Your task to perform on an android device: turn off notifications settings in the gmail app Image 0: 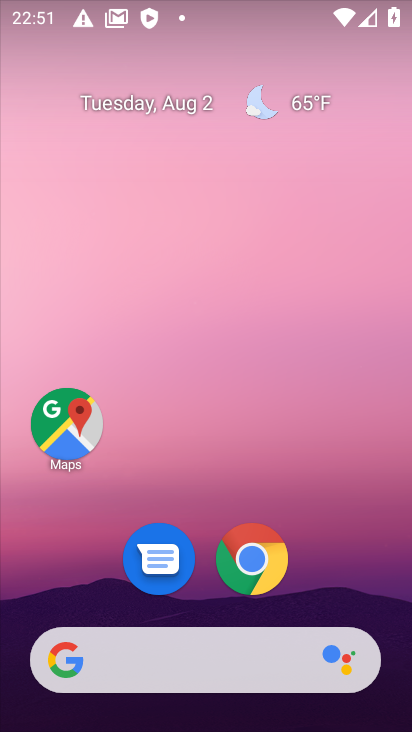
Step 0: drag from (282, 641) to (235, 296)
Your task to perform on an android device: turn off notifications settings in the gmail app Image 1: 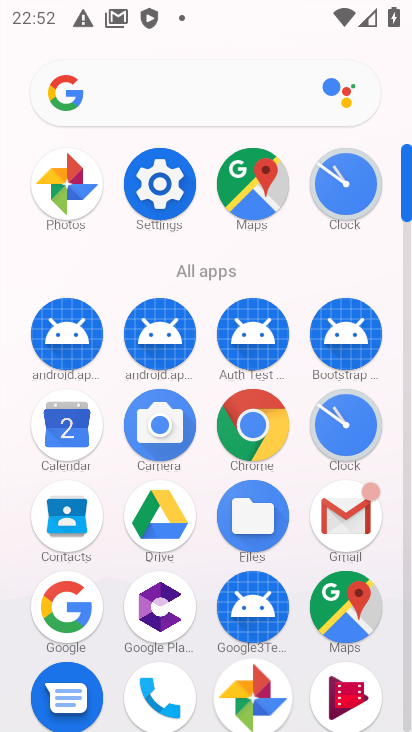
Step 1: click (170, 173)
Your task to perform on an android device: turn off notifications settings in the gmail app Image 2: 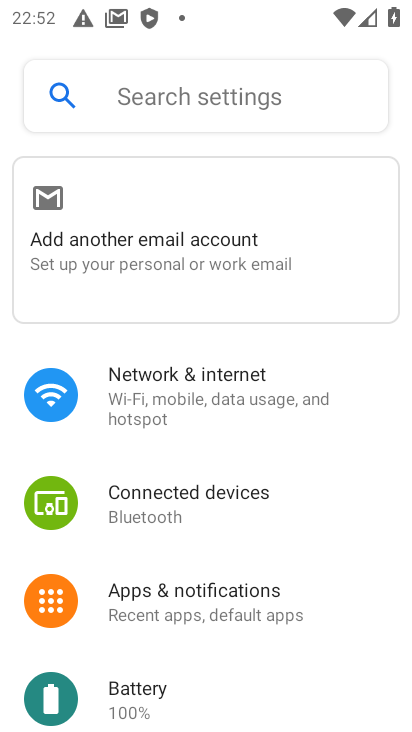
Step 2: press back button
Your task to perform on an android device: turn off notifications settings in the gmail app Image 3: 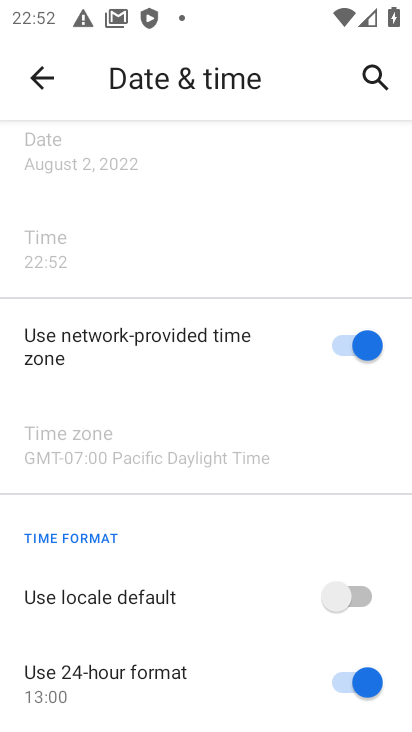
Step 3: click (44, 73)
Your task to perform on an android device: turn off notifications settings in the gmail app Image 4: 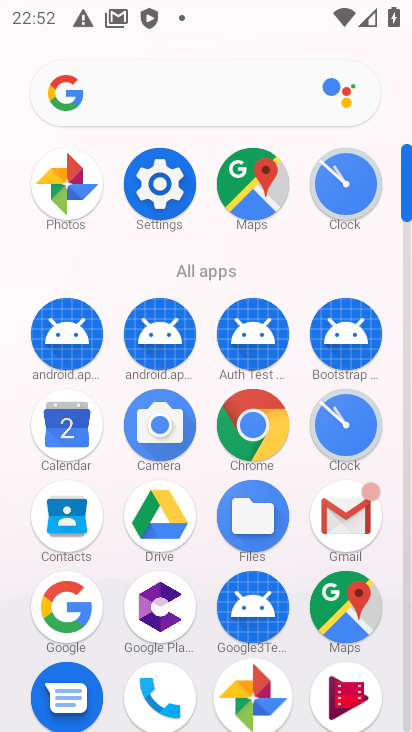
Step 4: click (322, 511)
Your task to perform on an android device: turn off notifications settings in the gmail app Image 5: 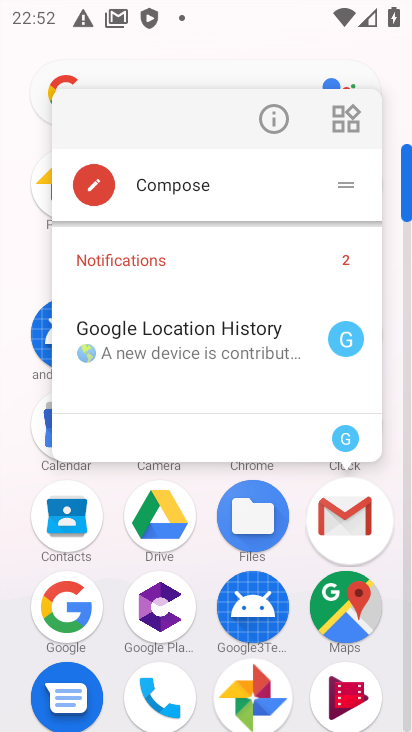
Step 5: click (353, 496)
Your task to perform on an android device: turn off notifications settings in the gmail app Image 6: 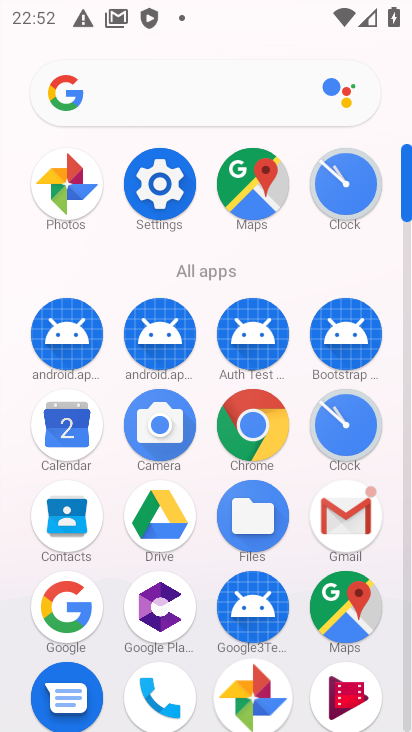
Step 6: click (351, 499)
Your task to perform on an android device: turn off notifications settings in the gmail app Image 7: 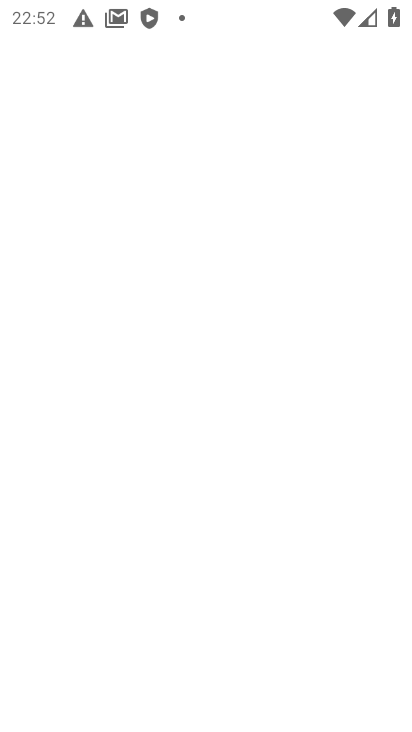
Step 7: click (347, 508)
Your task to perform on an android device: turn off notifications settings in the gmail app Image 8: 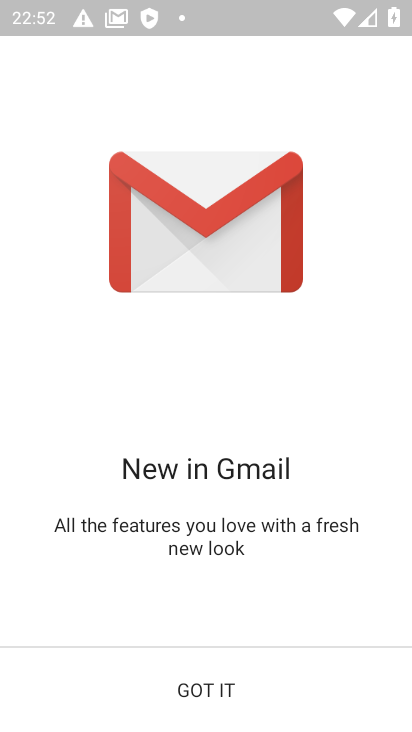
Step 8: click (202, 691)
Your task to perform on an android device: turn off notifications settings in the gmail app Image 9: 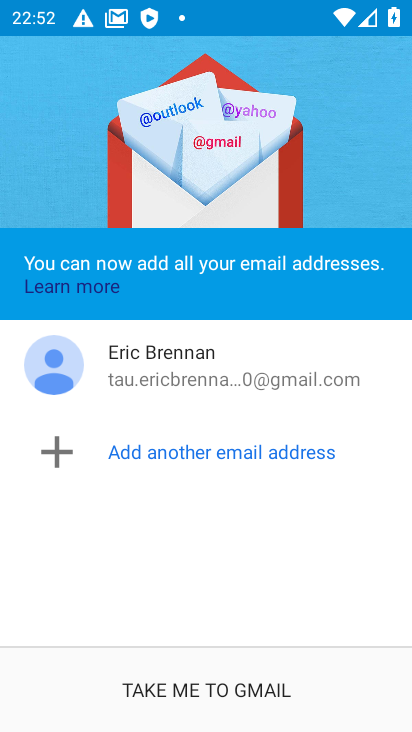
Step 9: click (228, 684)
Your task to perform on an android device: turn off notifications settings in the gmail app Image 10: 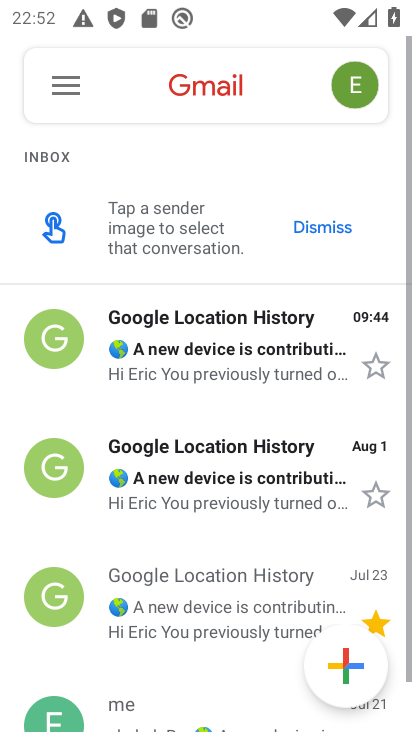
Step 10: click (60, 82)
Your task to perform on an android device: turn off notifications settings in the gmail app Image 11: 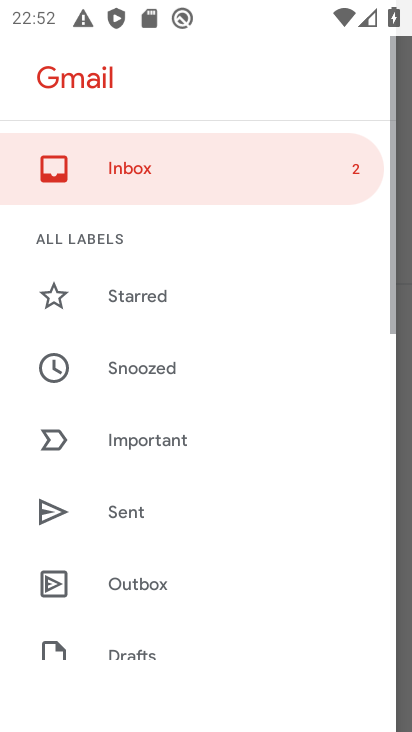
Step 11: drag from (138, 498) to (159, 136)
Your task to perform on an android device: turn off notifications settings in the gmail app Image 12: 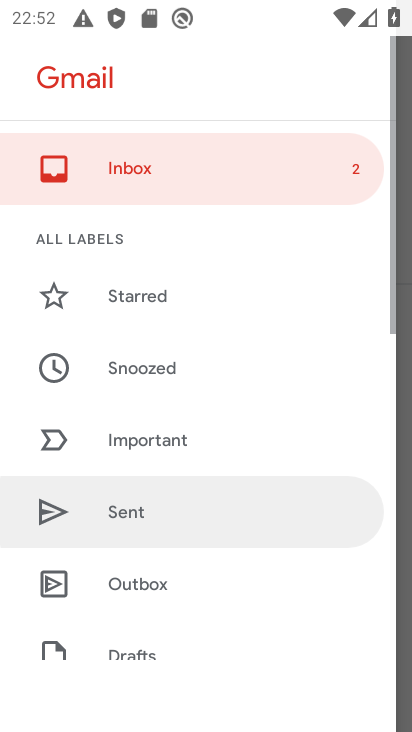
Step 12: drag from (152, 419) to (152, 193)
Your task to perform on an android device: turn off notifications settings in the gmail app Image 13: 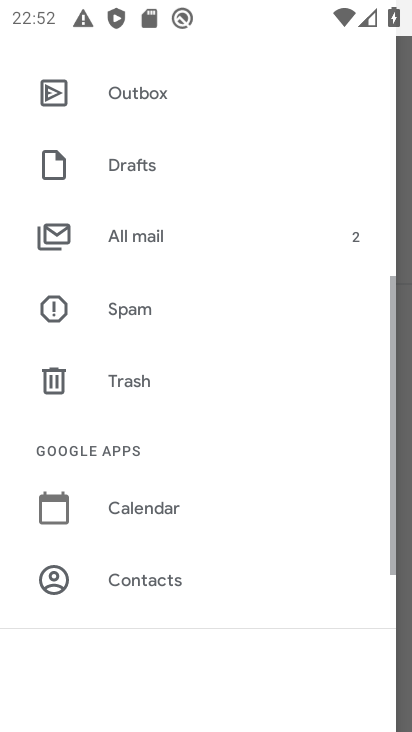
Step 13: drag from (170, 581) to (178, 250)
Your task to perform on an android device: turn off notifications settings in the gmail app Image 14: 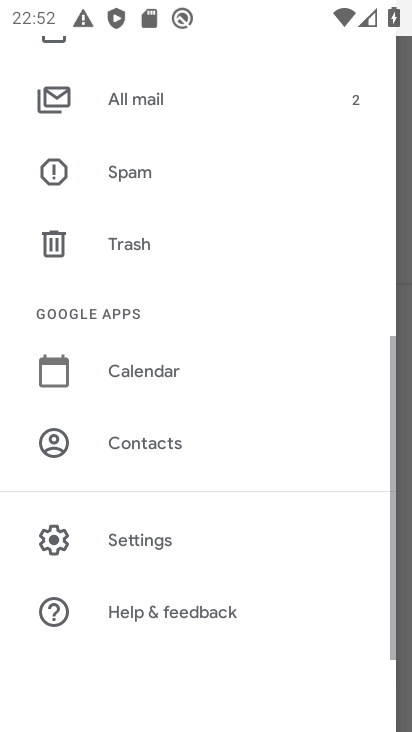
Step 14: drag from (206, 561) to (189, 217)
Your task to perform on an android device: turn off notifications settings in the gmail app Image 15: 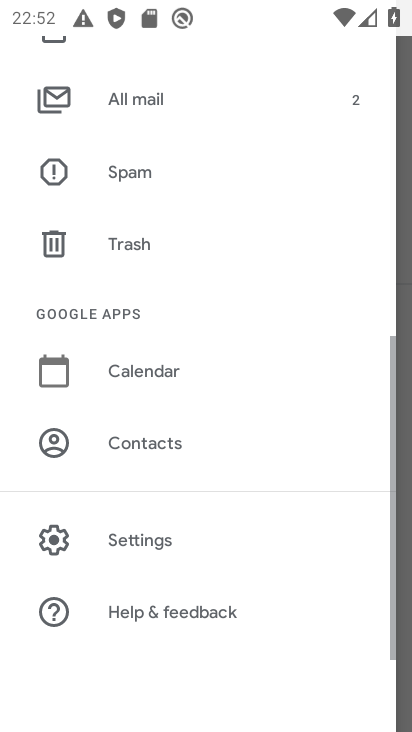
Step 15: click (138, 537)
Your task to perform on an android device: turn off notifications settings in the gmail app Image 16: 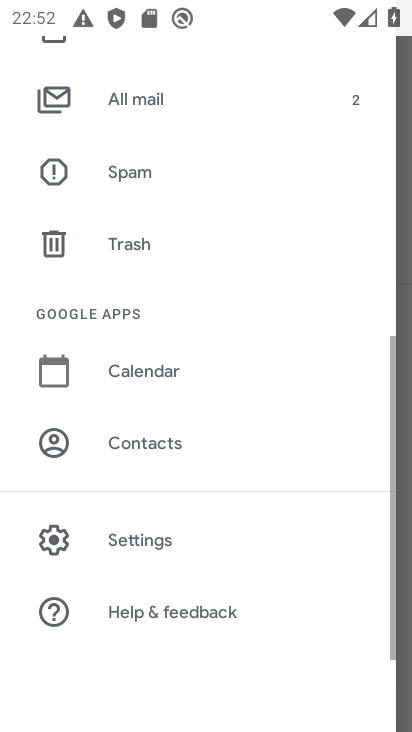
Step 16: click (138, 537)
Your task to perform on an android device: turn off notifications settings in the gmail app Image 17: 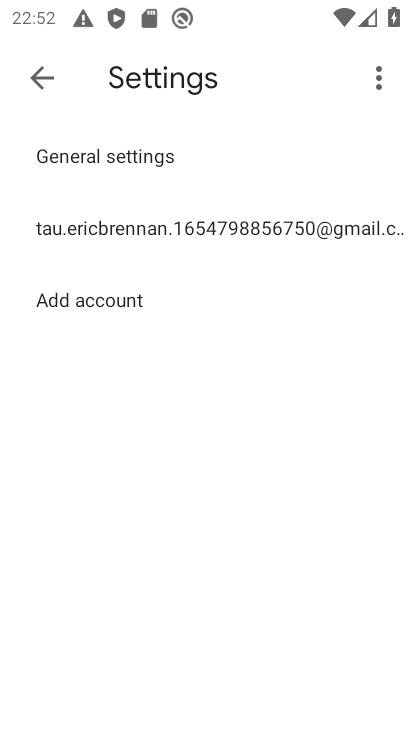
Step 17: click (104, 226)
Your task to perform on an android device: turn off notifications settings in the gmail app Image 18: 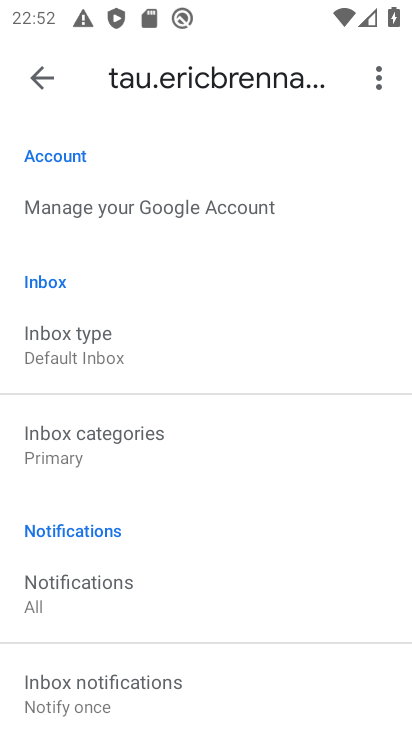
Step 18: click (50, 574)
Your task to perform on an android device: turn off notifications settings in the gmail app Image 19: 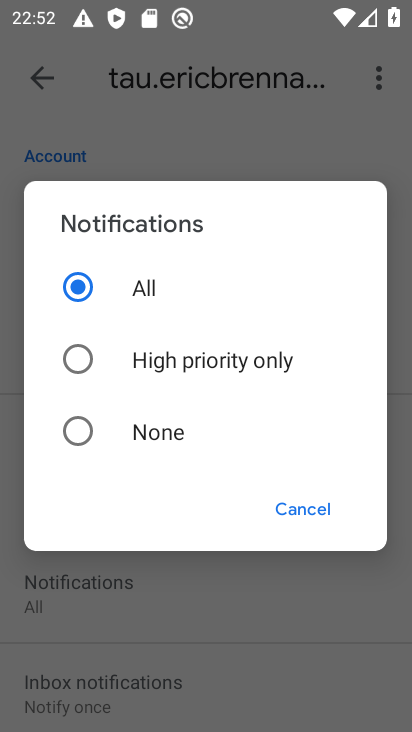
Step 19: click (69, 433)
Your task to perform on an android device: turn off notifications settings in the gmail app Image 20: 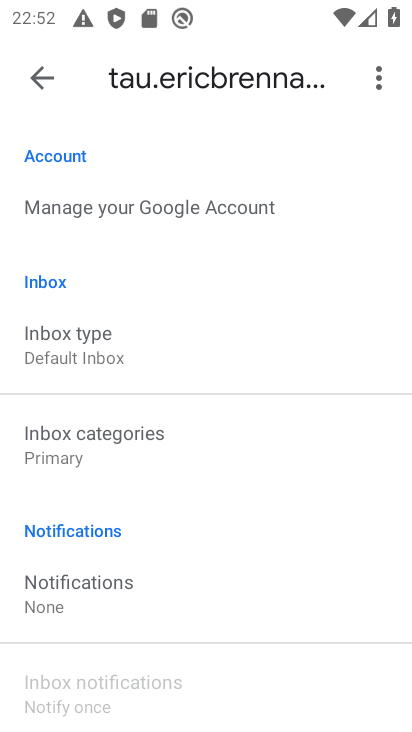
Step 20: task complete